Your task to perform on an android device: open a bookmark in the chrome app Image 0: 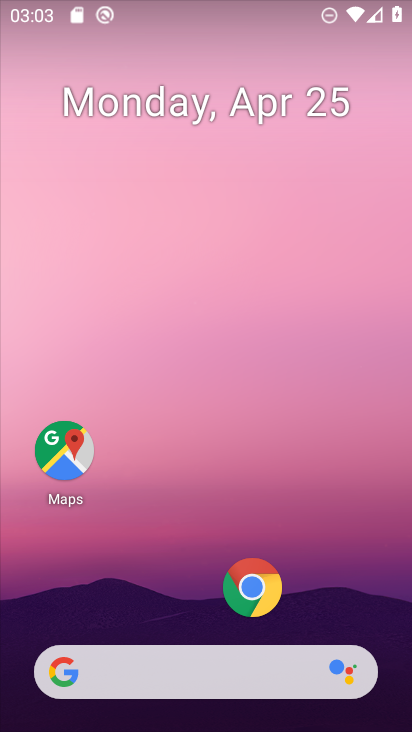
Step 0: drag from (192, 622) to (207, 60)
Your task to perform on an android device: open a bookmark in the chrome app Image 1: 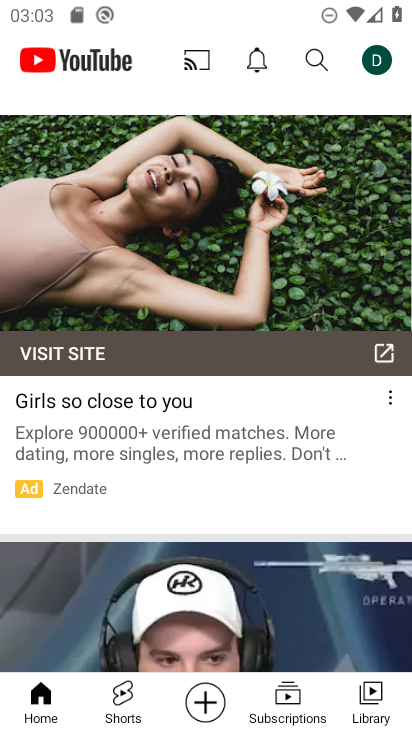
Step 1: press home button
Your task to perform on an android device: open a bookmark in the chrome app Image 2: 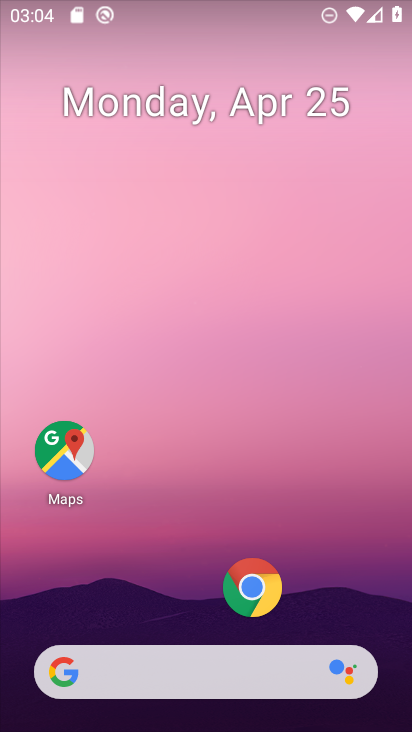
Step 2: drag from (210, 619) to (216, 49)
Your task to perform on an android device: open a bookmark in the chrome app Image 3: 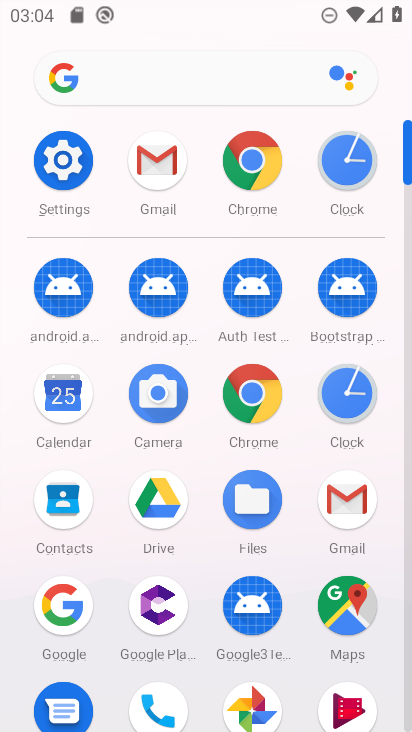
Step 3: click (249, 384)
Your task to perform on an android device: open a bookmark in the chrome app Image 4: 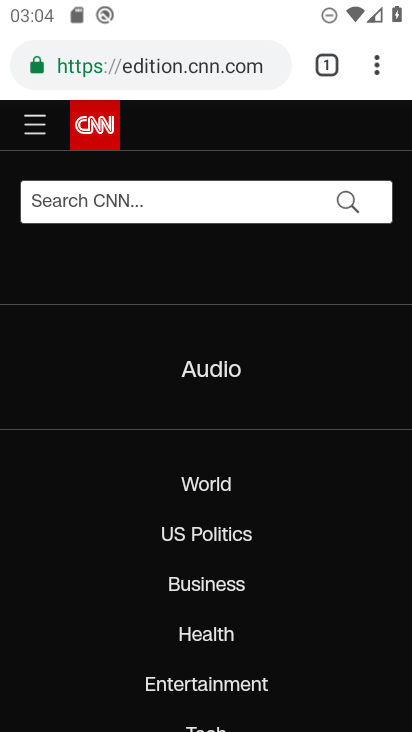
Step 4: click (375, 68)
Your task to perform on an android device: open a bookmark in the chrome app Image 5: 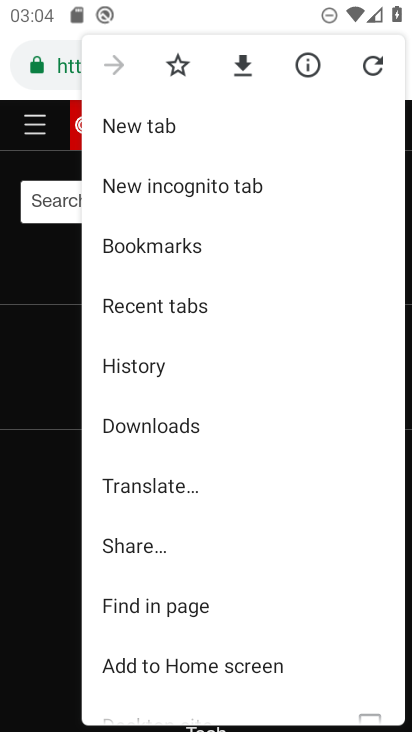
Step 5: click (208, 240)
Your task to perform on an android device: open a bookmark in the chrome app Image 6: 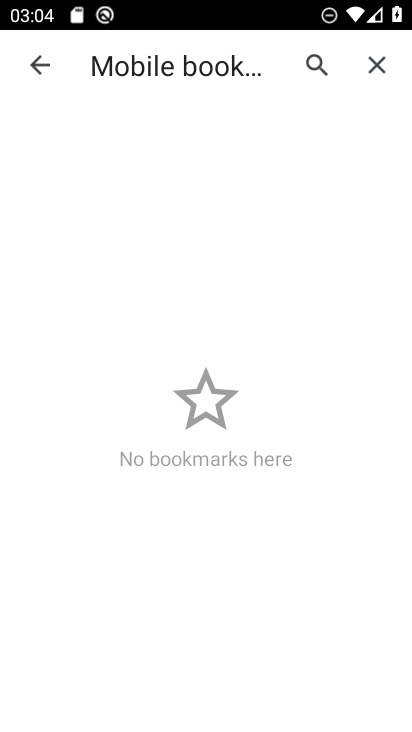
Step 6: task complete